Your task to perform on an android device: Open network settings Image 0: 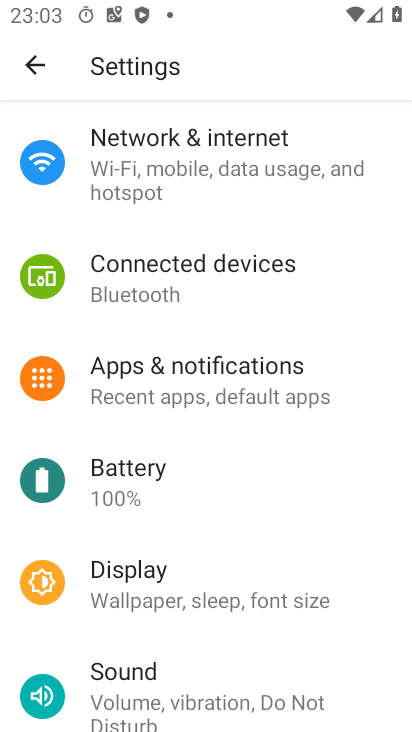
Step 0: click (175, 180)
Your task to perform on an android device: Open network settings Image 1: 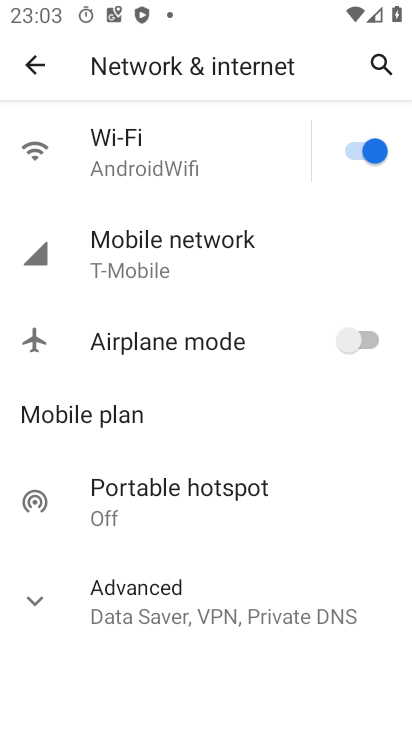
Step 1: click (142, 251)
Your task to perform on an android device: Open network settings Image 2: 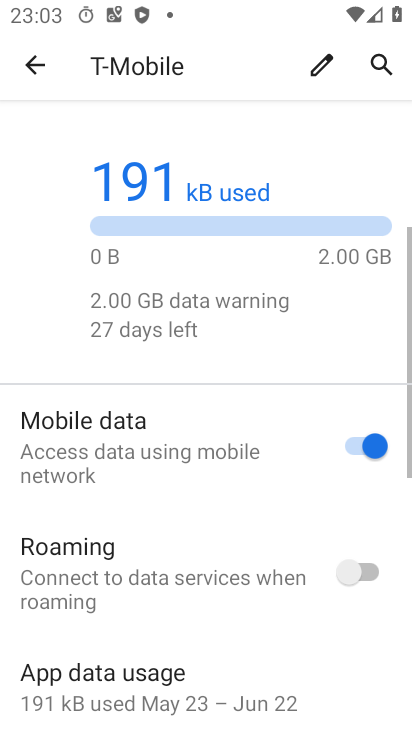
Step 2: drag from (183, 582) to (149, 76)
Your task to perform on an android device: Open network settings Image 3: 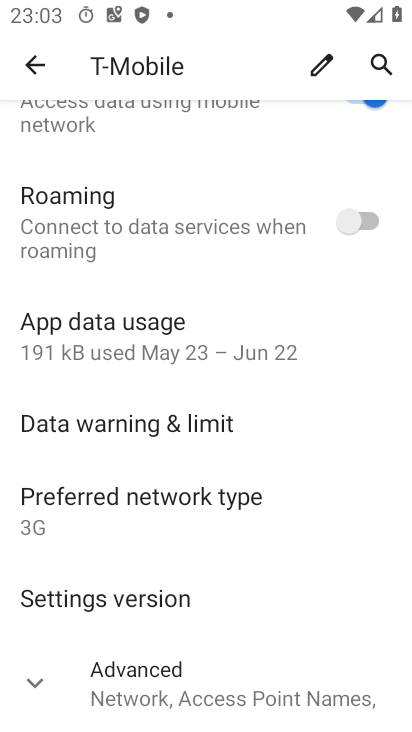
Step 3: click (43, 690)
Your task to perform on an android device: Open network settings Image 4: 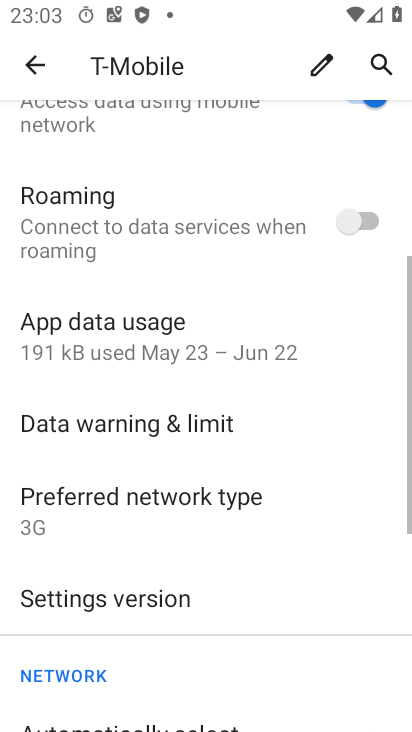
Step 4: task complete